Your task to perform on an android device: toggle improve location accuracy Image 0: 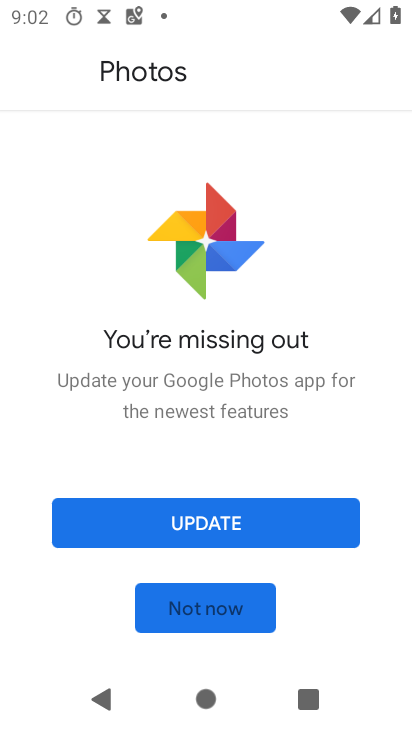
Step 0: press home button
Your task to perform on an android device: toggle improve location accuracy Image 1: 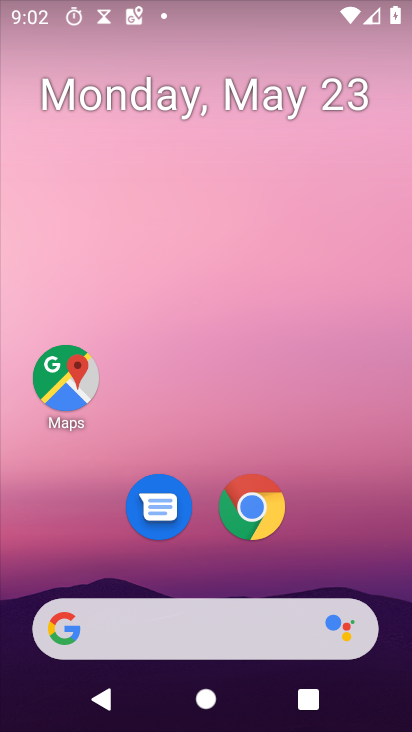
Step 1: drag from (363, 498) to (411, 101)
Your task to perform on an android device: toggle improve location accuracy Image 2: 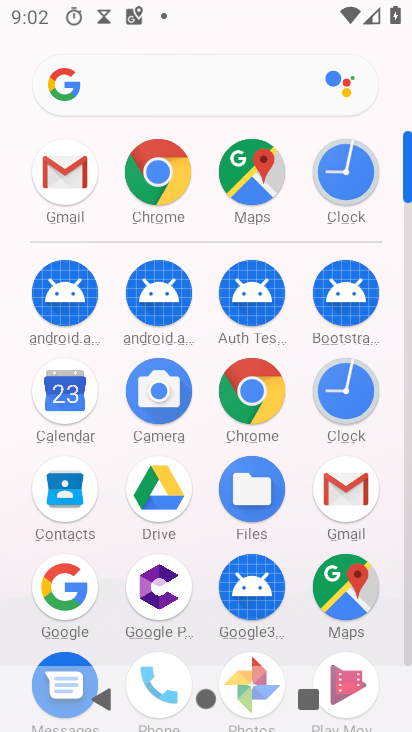
Step 2: drag from (385, 611) to (377, 155)
Your task to perform on an android device: toggle improve location accuracy Image 3: 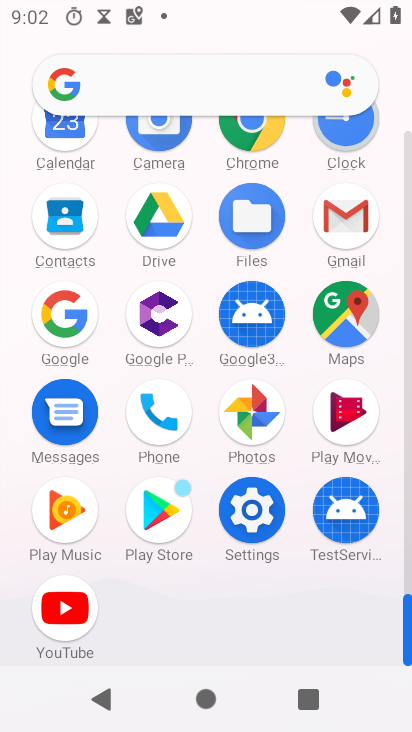
Step 3: click (245, 509)
Your task to perform on an android device: toggle improve location accuracy Image 4: 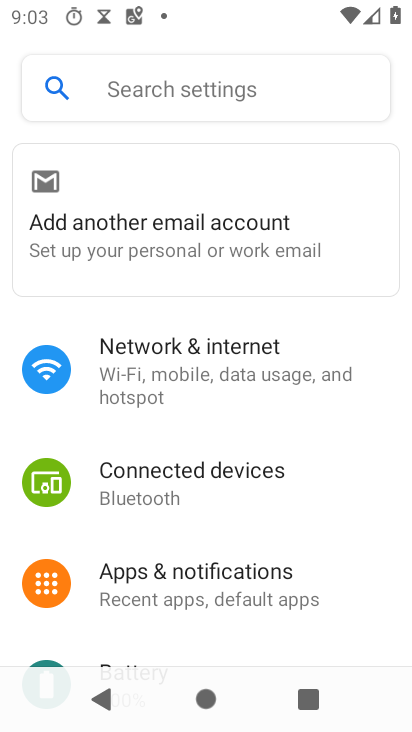
Step 4: drag from (235, 616) to (181, 217)
Your task to perform on an android device: toggle improve location accuracy Image 5: 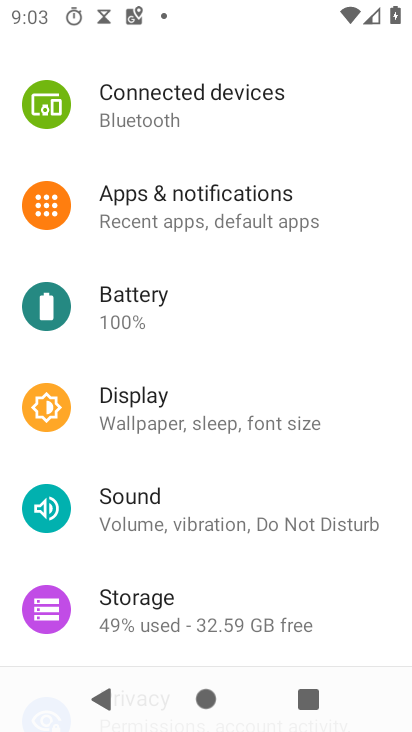
Step 5: drag from (228, 600) to (279, 189)
Your task to perform on an android device: toggle improve location accuracy Image 6: 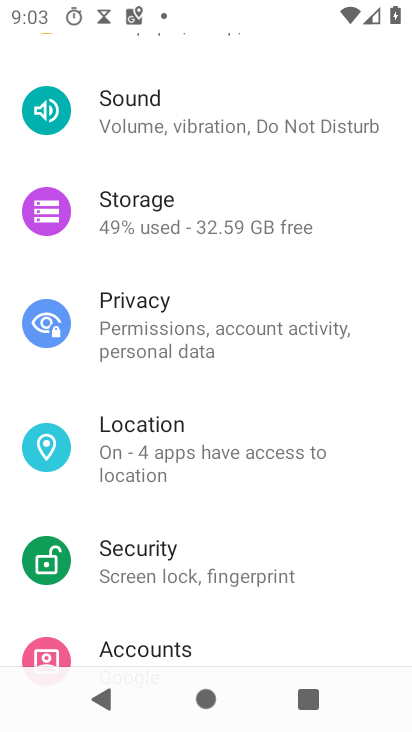
Step 6: click (177, 448)
Your task to perform on an android device: toggle improve location accuracy Image 7: 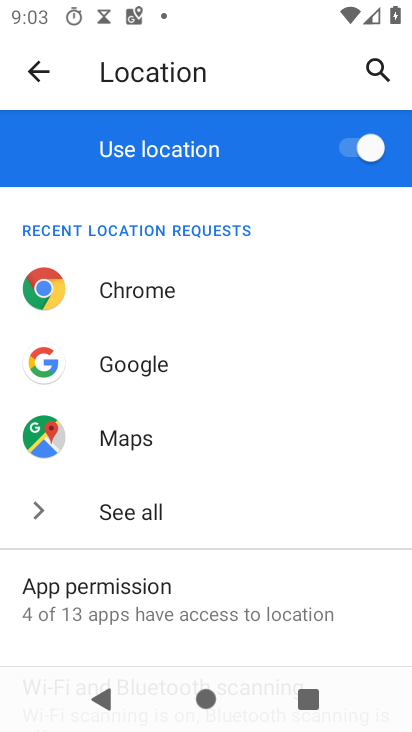
Step 7: drag from (178, 572) to (219, 208)
Your task to perform on an android device: toggle improve location accuracy Image 8: 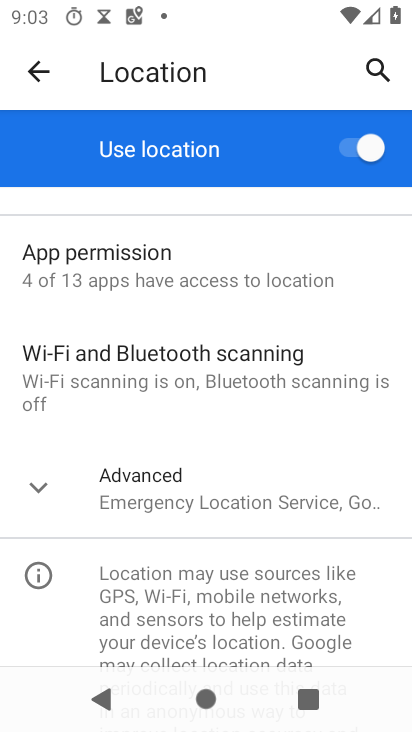
Step 8: click (162, 503)
Your task to perform on an android device: toggle improve location accuracy Image 9: 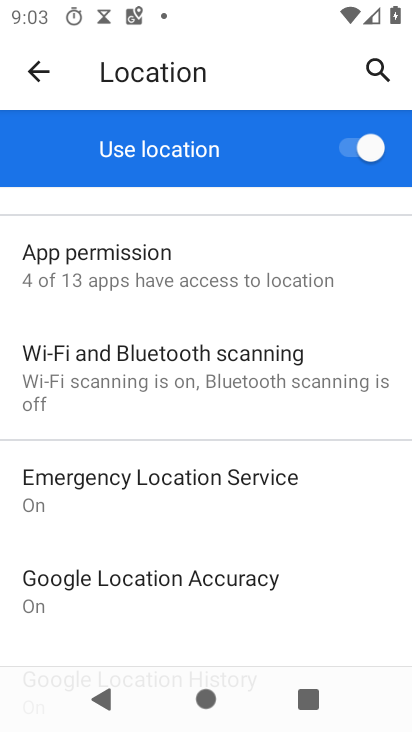
Step 9: click (209, 582)
Your task to perform on an android device: toggle improve location accuracy Image 10: 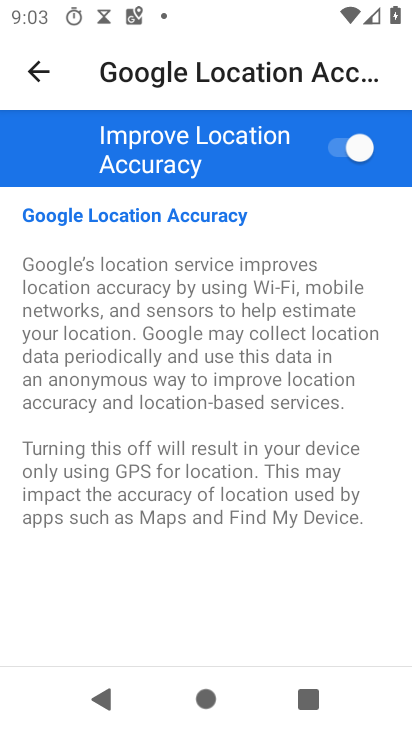
Step 10: click (333, 147)
Your task to perform on an android device: toggle improve location accuracy Image 11: 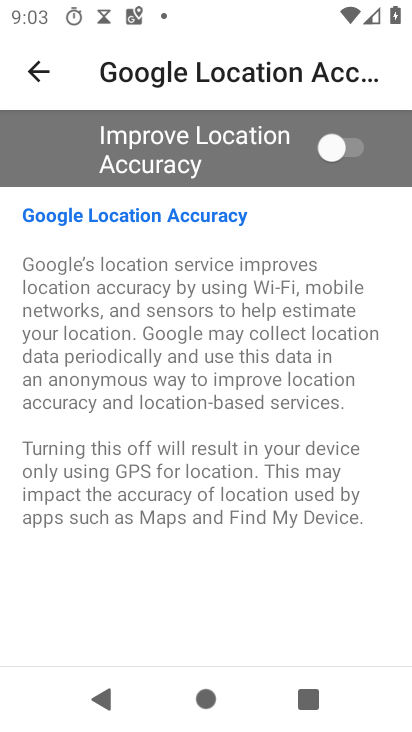
Step 11: task complete